Your task to perform on an android device: Open Chrome and go to the settings page Image 0: 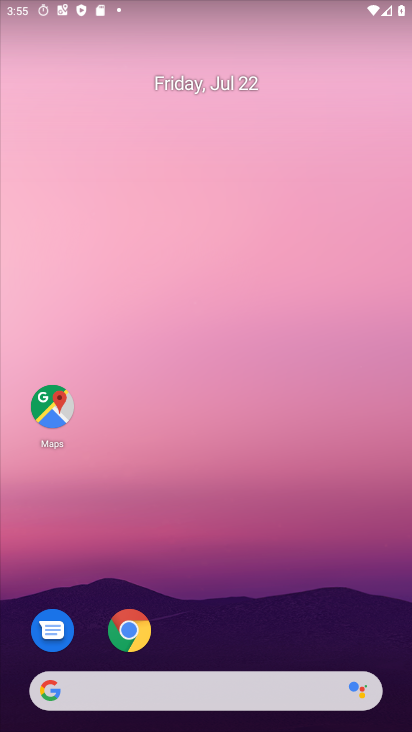
Step 0: drag from (234, 682) to (315, 1)
Your task to perform on an android device: Open Chrome and go to the settings page Image 1: 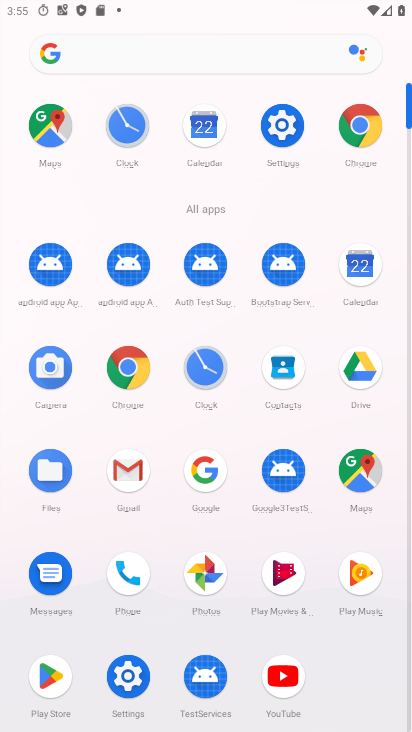
Step 1: click (138, 371)
Your task to perform on an android device: Open Chrome and go to the settings page Image 2: 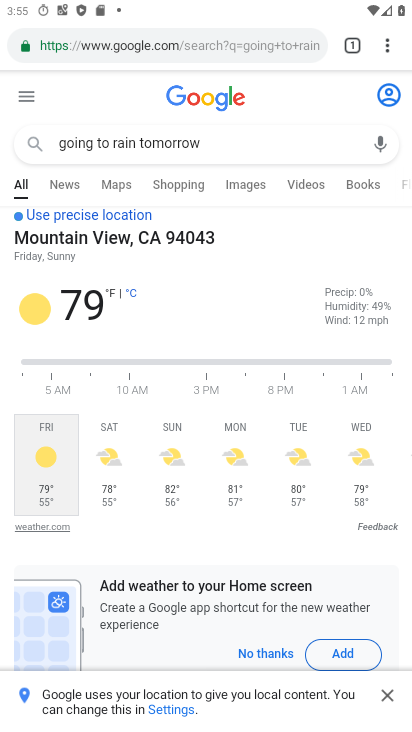
Step 2: task complete